Your task to perform on an android device: Search for usb-b on newegg.com, select the first entry, and add it to the cart. Image 0: 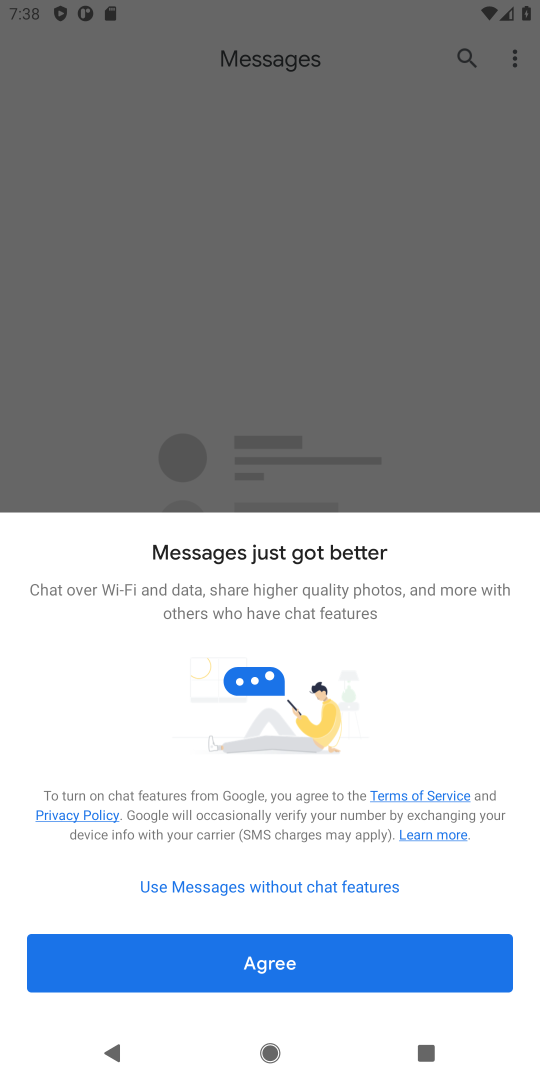
Step 0: press home button
Your task to perform on an android device: Search for usb-b on newegg.com, select the first entry, and add it to the cart. Image 1: 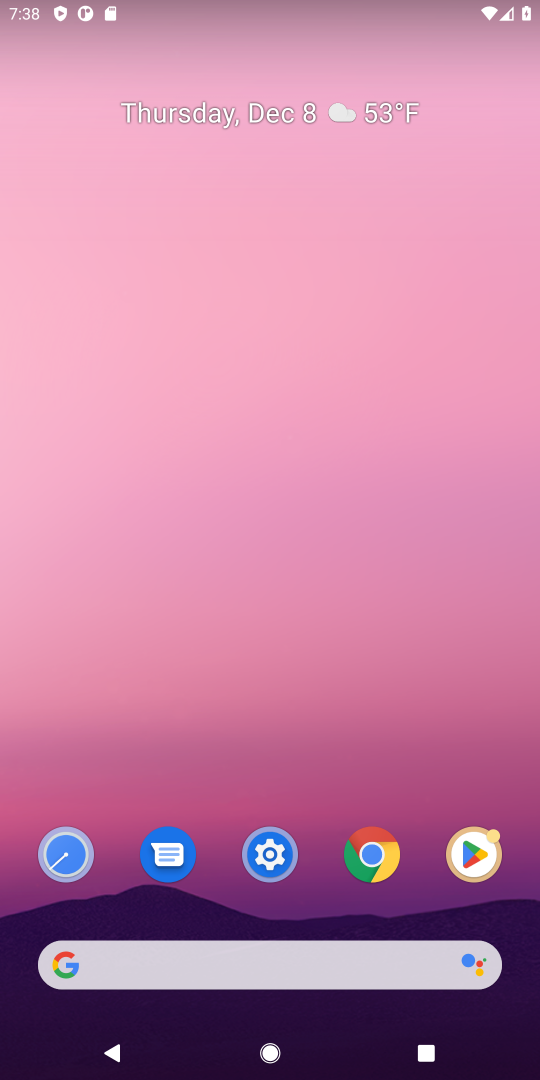
Step 1: click (92, 961)
Your task to perform on an android device: Search for usb-b on newegg.com, select the first entry, and add it to the cart. Image 2: 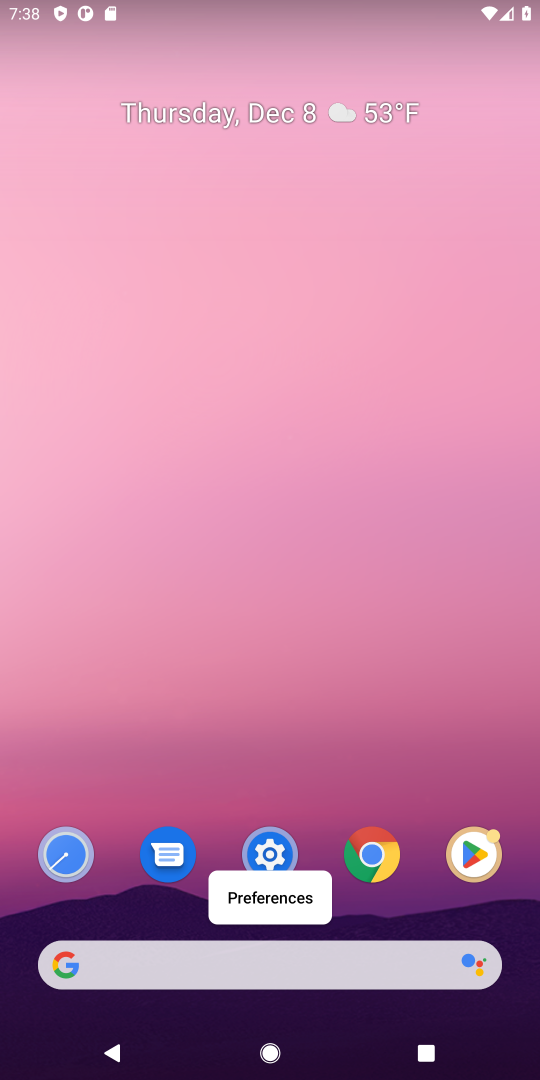
Step 2: click (102, 961)
Your task to perform on an android device: Search for usb-b on newegg.com, select the first entry, and add it to the cart. Image 3: 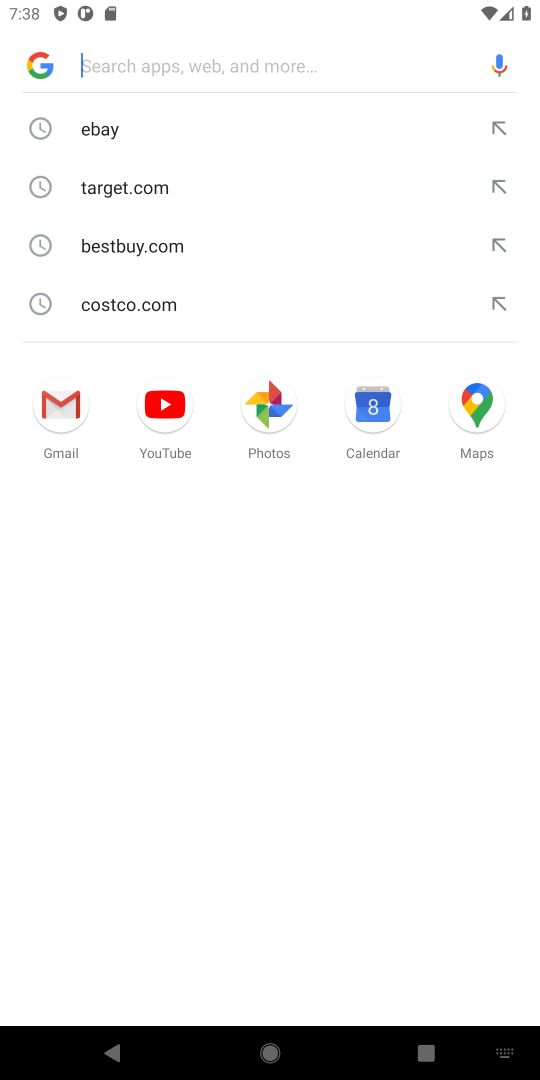
Step 3: type "newegg.com"
Your task to perform on an android device: Search for usb-b on newegg.com, select the first entry, and add it to the cart. Image 4: 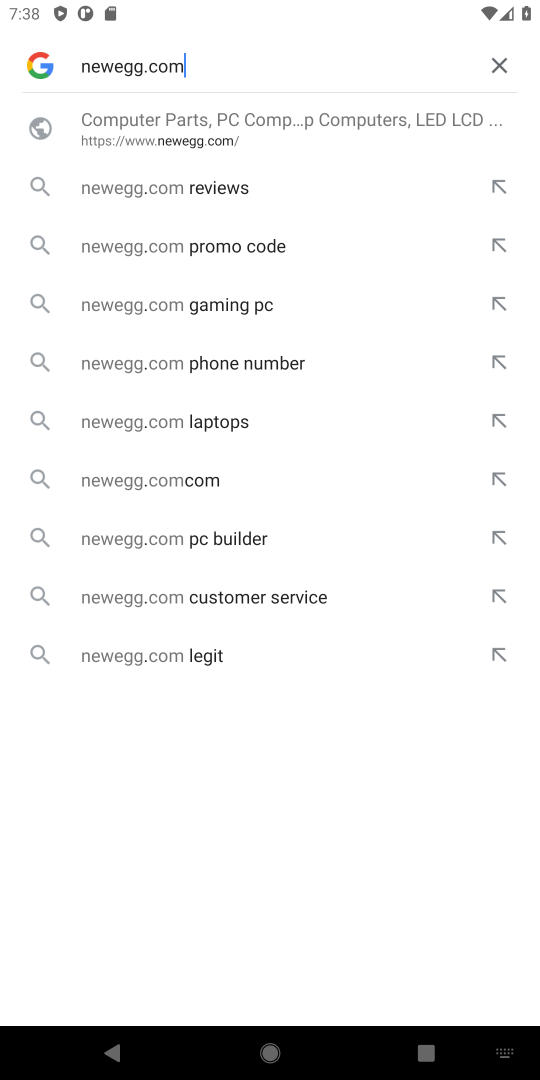
Step 4: press enter
Your task to perform on an android device: Search for usb-b on newegg.com, select the first entry, and add it to the cart. Image 5: 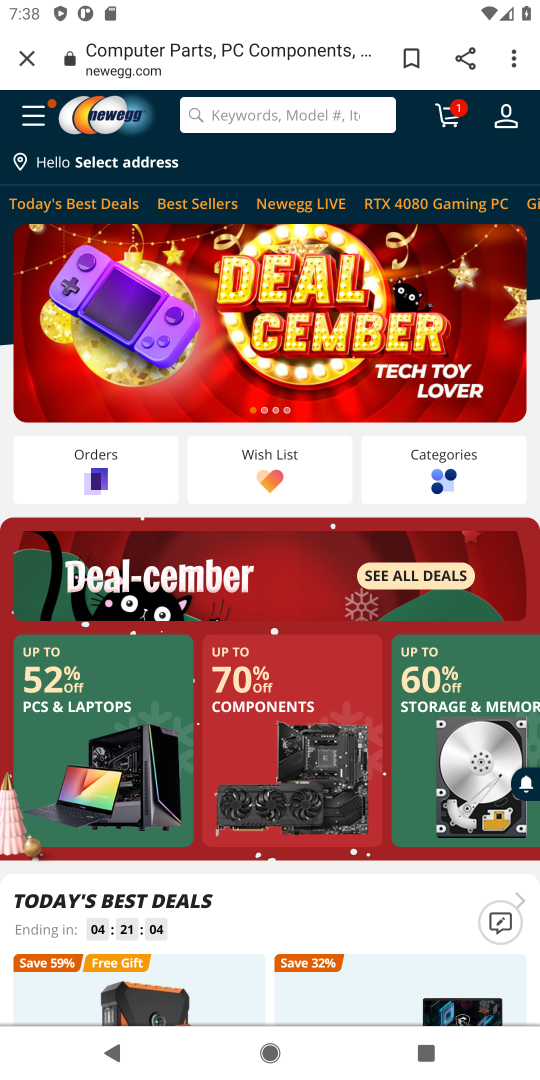
Step 5: click (226, 112)
Your task to perform on an android device: Search for usb-b on newegg.com, select the first entry, and add it to the cart. Image 6: 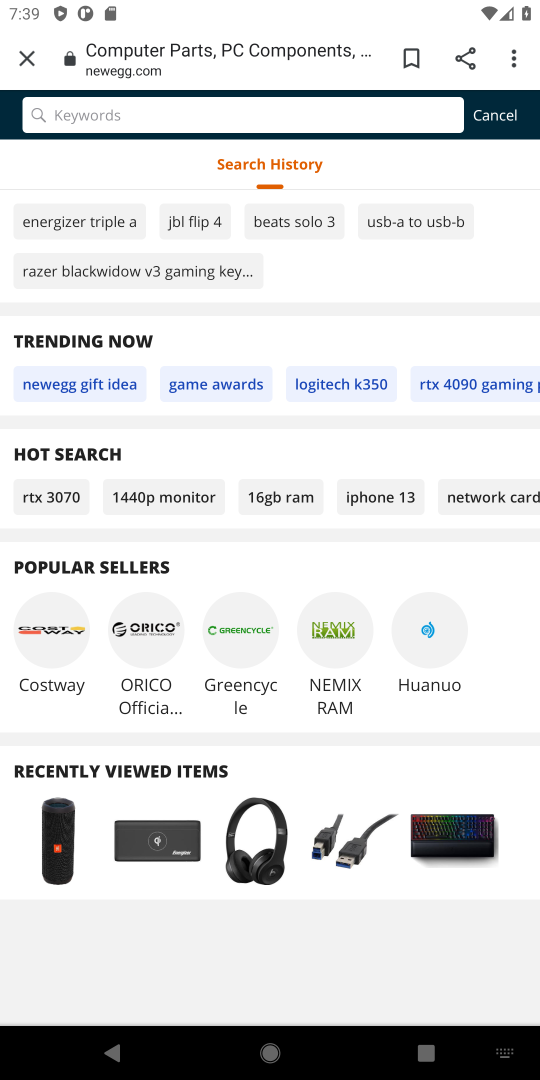
Step 6: type "usb-b"
Your task to perform on an android device: Search for usb-b on newegg.com, select the first entry, and add it to the cart. Image 7: 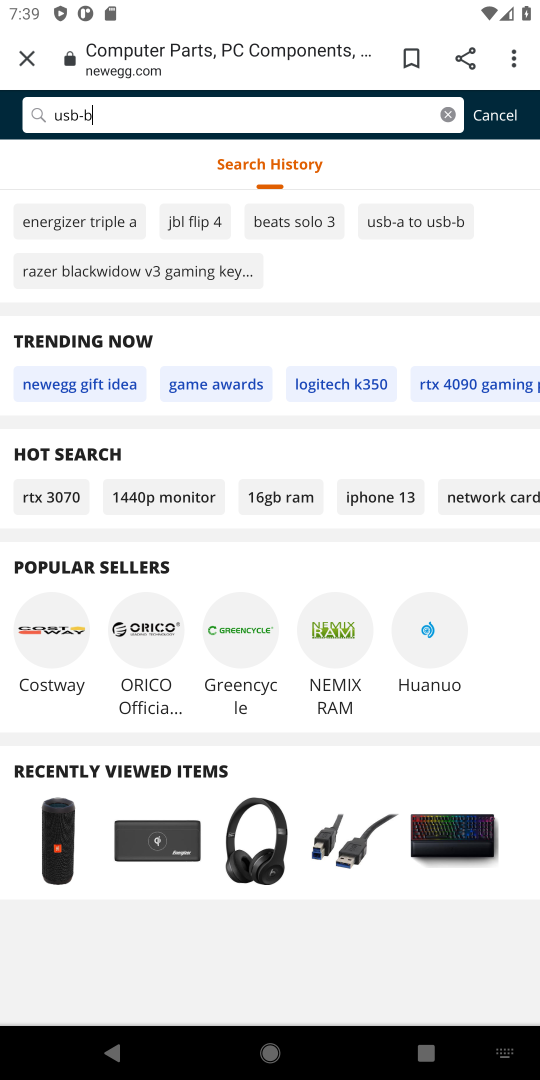
Step 7: press enter
Your task to perform on an android device: Search for usb-b on newegg.com, select the first entry, and add it to the cart. Image 8: 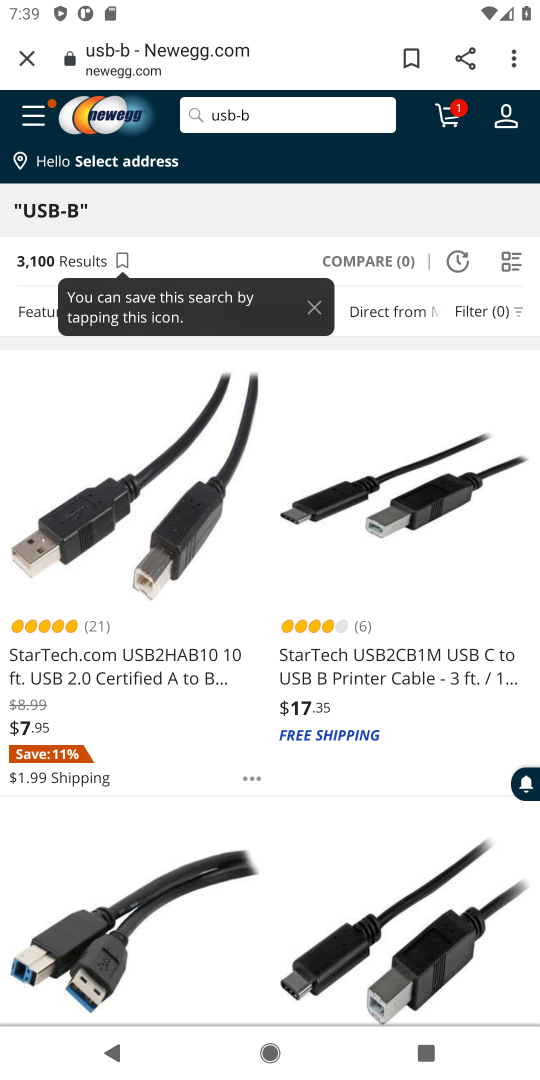
Step 8: drag from (375, 868) to (390, 460)
Your task to perform on an android device: Search for usb-b on newegg.com, select the first entry, and add it to the cart. Image 9: 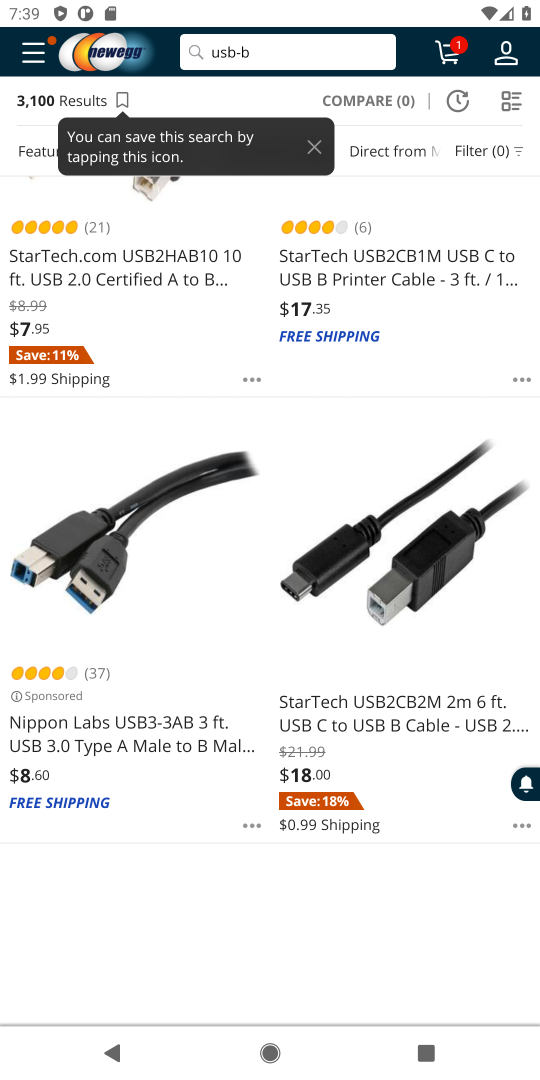
Step 9: drag from (224, 895) to (265, 677)
Your task to perform on an android device: Search for usb-b on newegg.com, select the first entry, and add it to the cart. Image 10: 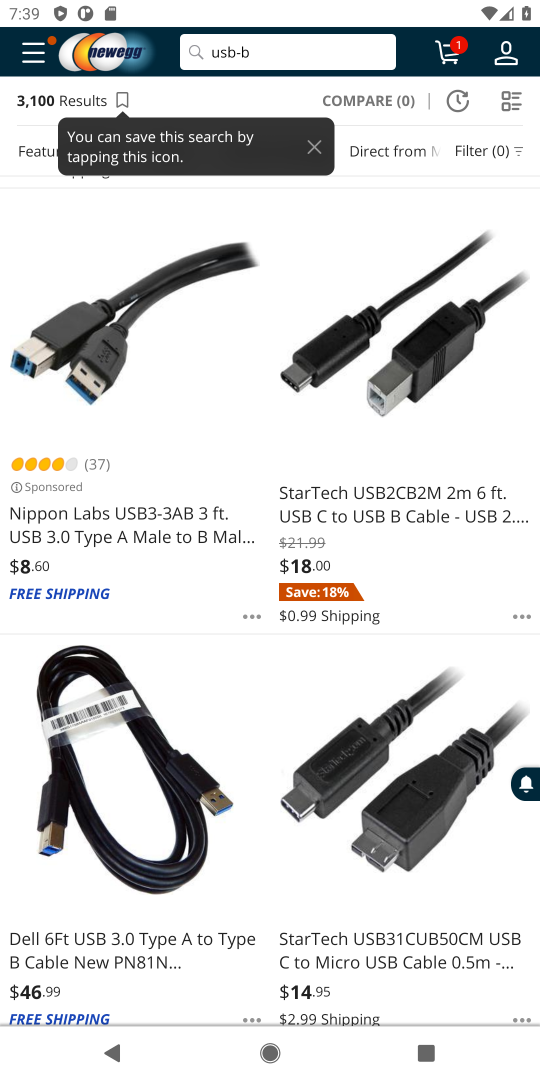
Step 10: click (374, 495)
Your task to perform on an android device: Search for usb-b on newegg.com, select the first entry, and add it to the cart. Image 11: 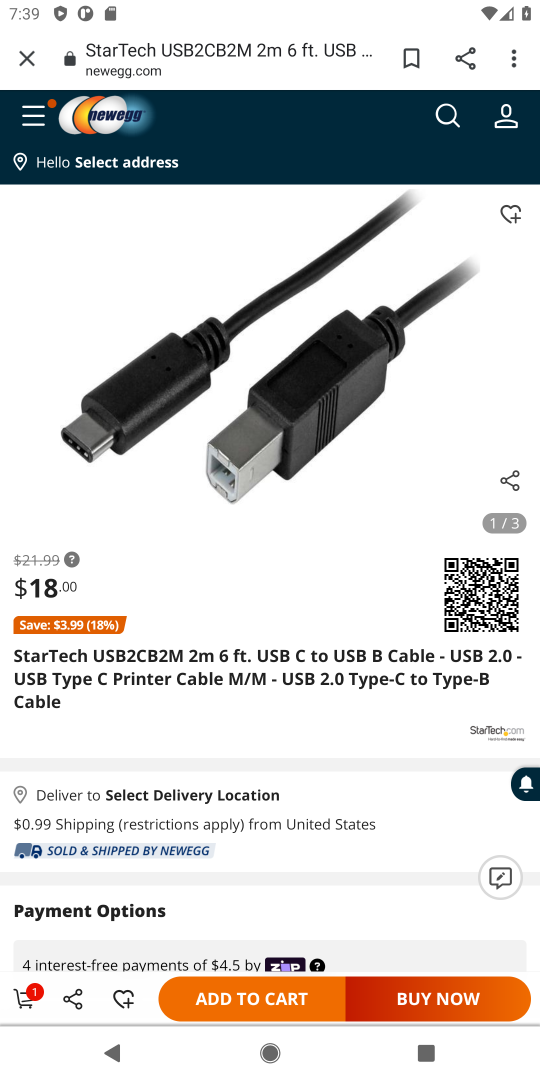
Step 11: click (251, 1008)
Your task to perform on an android device: Search for usb-b on newegg.com, select the first entry, and add it to the cart. Image 12: 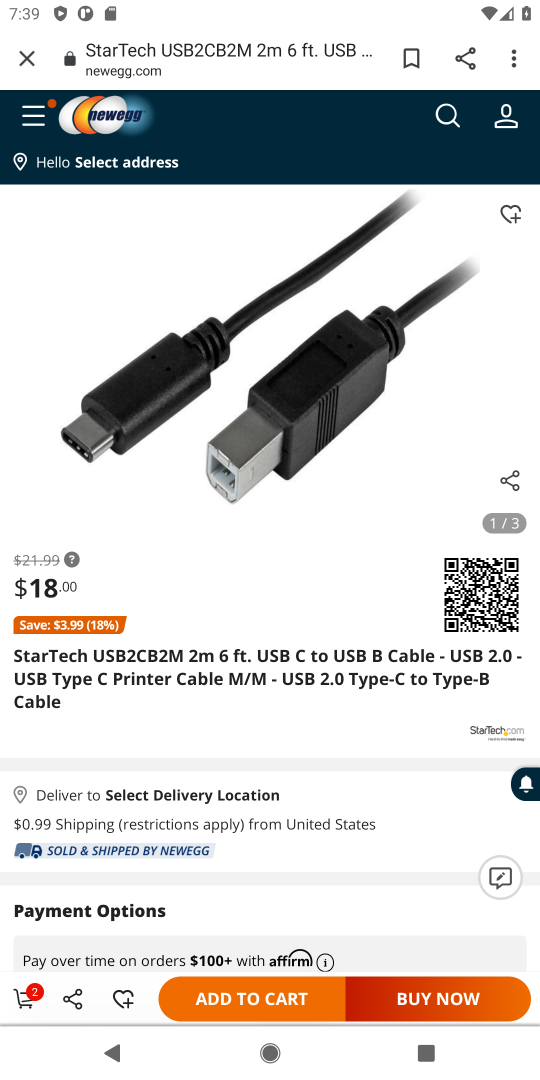
Step 12: task complete